Your task to perform on an android device: change alarm snooze length Image 0: 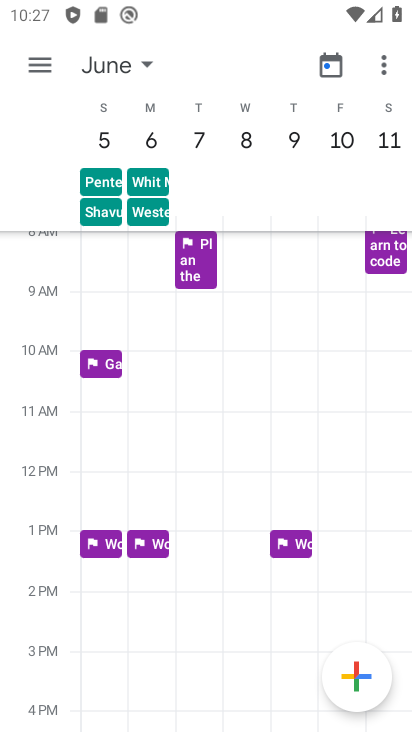
Step 0: press home button
Your task to perform on an android device: change alarm snooze length Image 1: 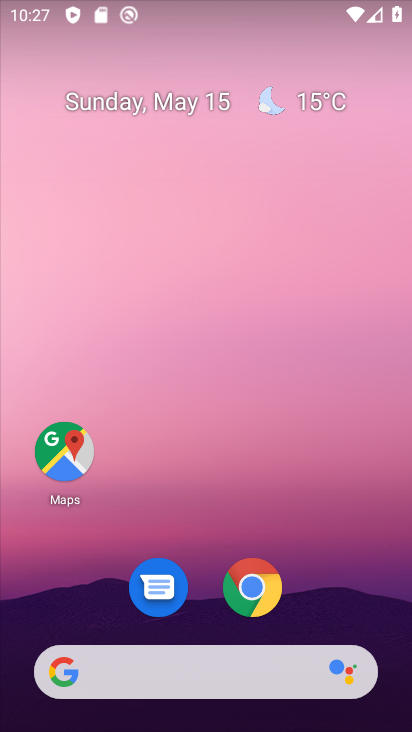
Step 1: drag from (270, 656) to (400, 67)
Your task to perform on an android device: change alarm snooze length Image 2: 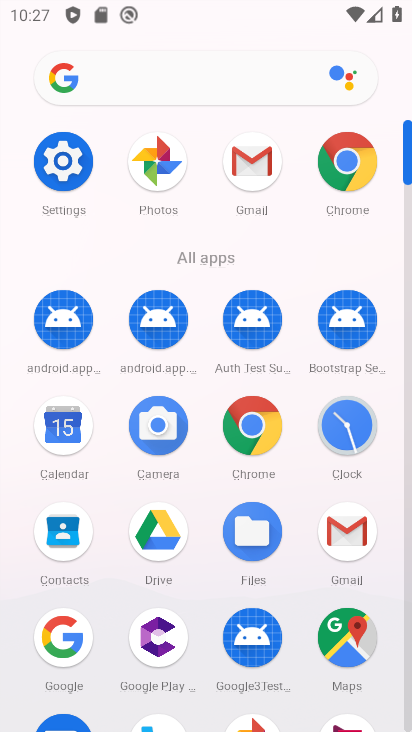
Step 2: click (351, 426)
Your task to perform on an android device: change alarm snooze length Image 3: 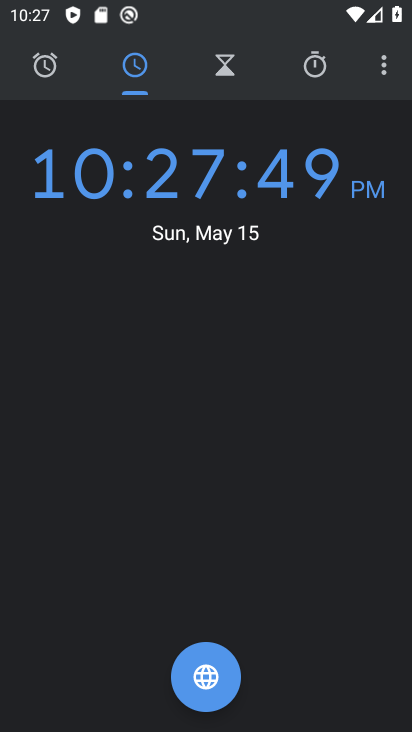
Step 3: click (386, 72)
Your task to perform on an android device: change alarm snooze length Image 4: 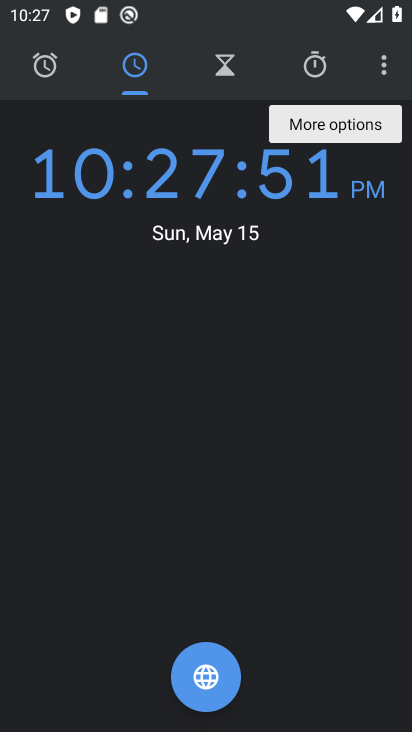
Step 4: click (380, 61)
Your task to perform on an android device: change alarm snooze length Image 5: 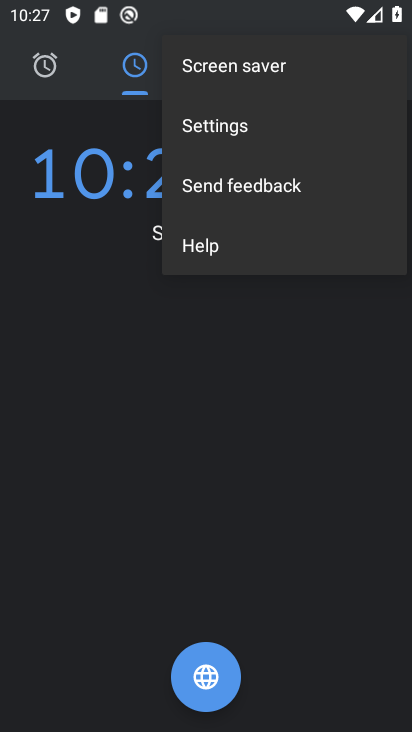
Step 5: click (346, 117)
Your task to perform on an android device: change alarm snooze length Image 6: 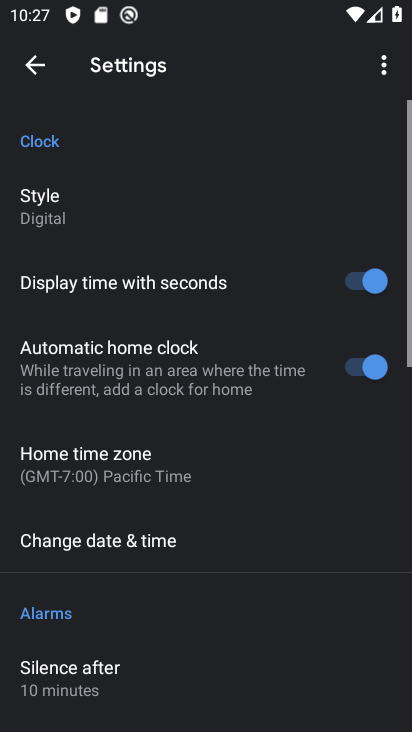
Step 6: drag from (163, 518) to (249, 188)
Your task to perform on an android device: change alarm snooze length Image 7: 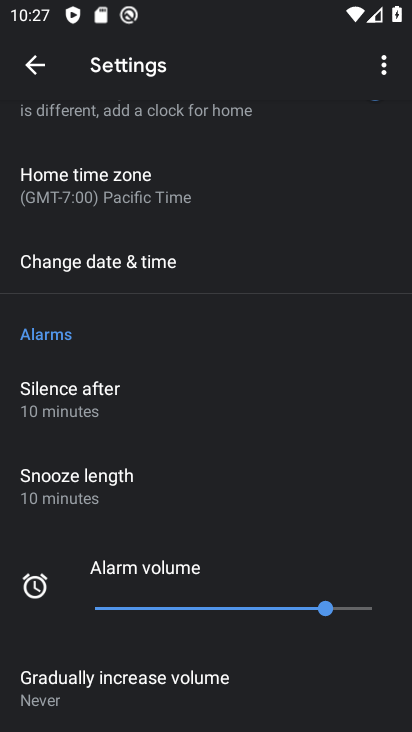
Step 7: click (204, 478)
Your task to perform on an android device: change alarm snooze length Image 8: 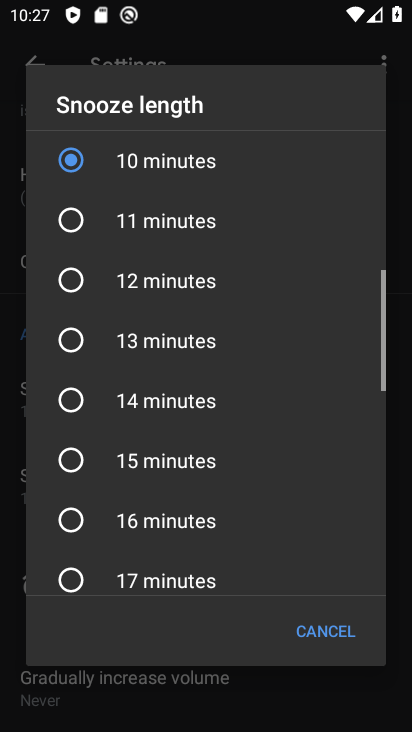
Step 8: drag from (205, 561) to (257, 237)
Your task to perform on an android device: change alarm snooze length Image 9: 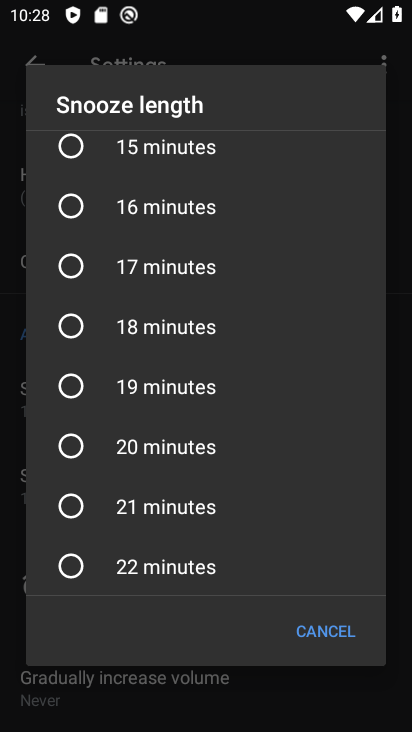
Step 9: click (206, 436)
Your task to perform on an android device: change alarm snooze length Image 10: 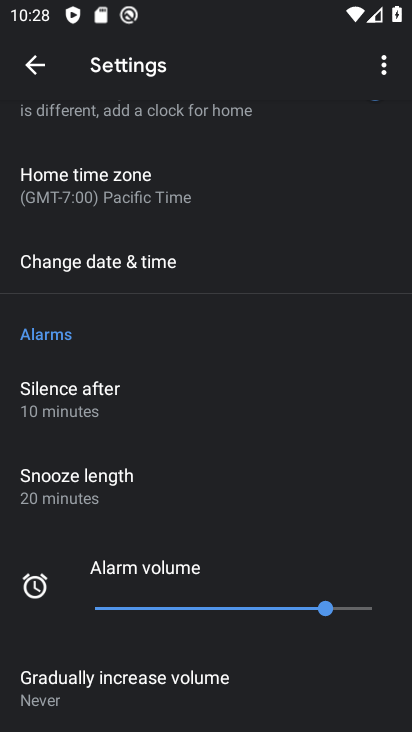
Step 10: task complete